Your task to perform on an android device: turn on priority inbox in the gmail app Image 0: 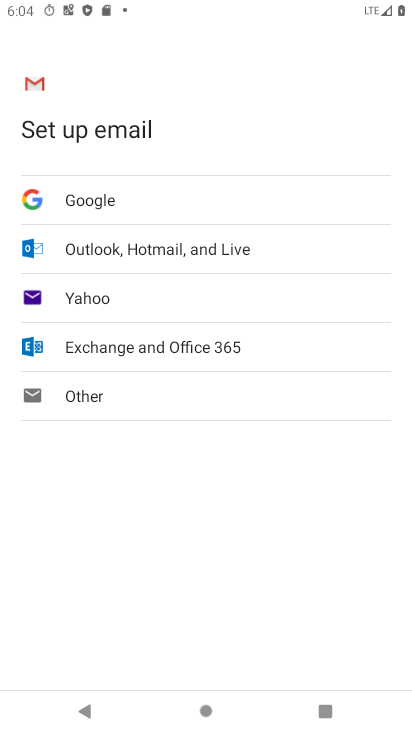
Step 0: press home button
Your task to perform on an android device: turn on priority inbox in the gmail app Image 1: 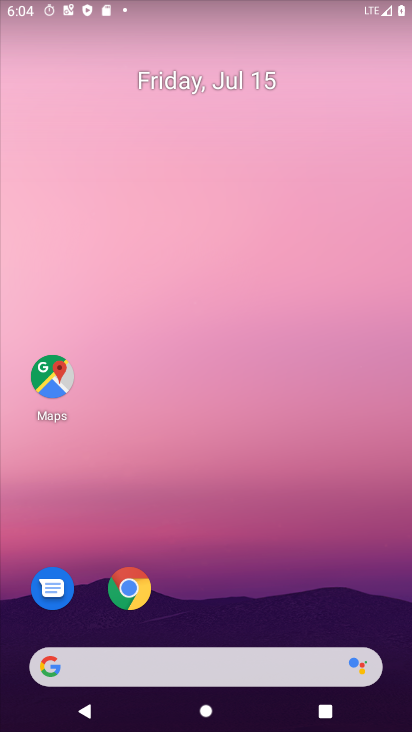
Step 1: drag from (256, 598) to (251, 26)
Your task to perform on an android device: turn on priority inbox in the gmail app Image 2: 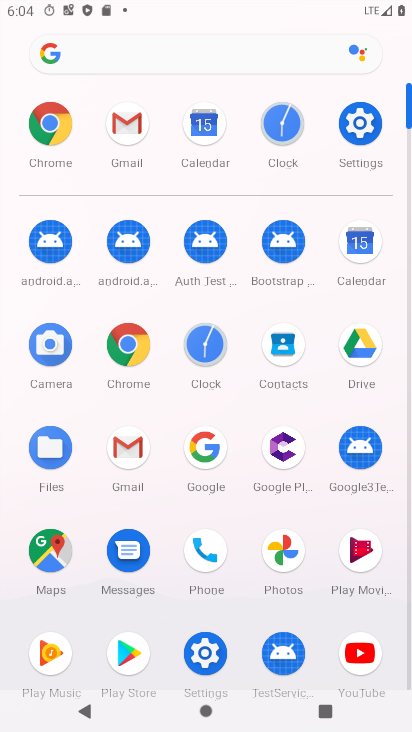
Step 2: click (134, 446)
Your task to perform on an android device: turn on priority inbox in the gmail app Image 3: 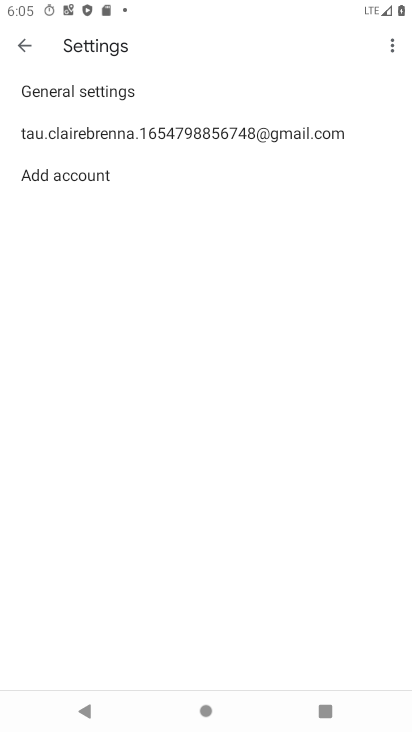
Step 3: click (194, 125)
Your task to perform on an android device: turn on priority inbox in the gmail app Image 4: 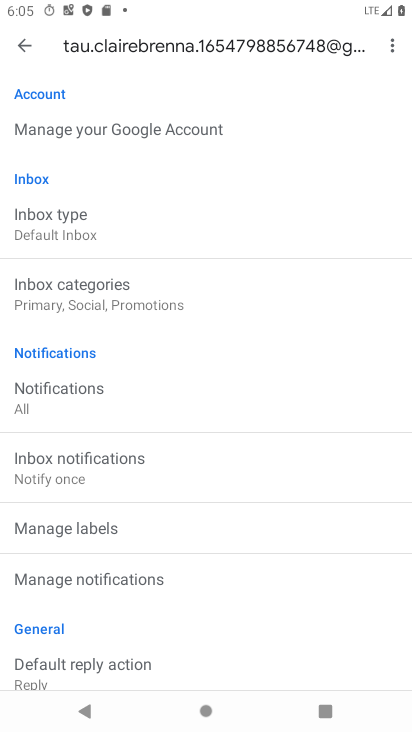
Step 4: click (32, 224)
Your task to perform on an android device: turn on priority inbox in the gmail app Image 5: 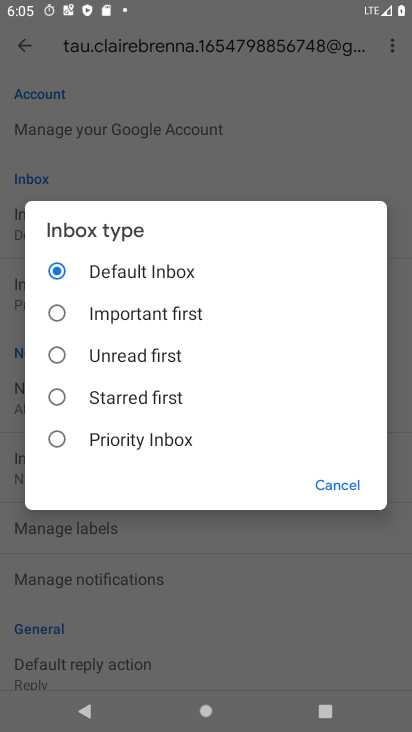
Step 5: click (51, 437)
Your task to perform on an android device: turn on priority inbox in the gmail app Image 6: 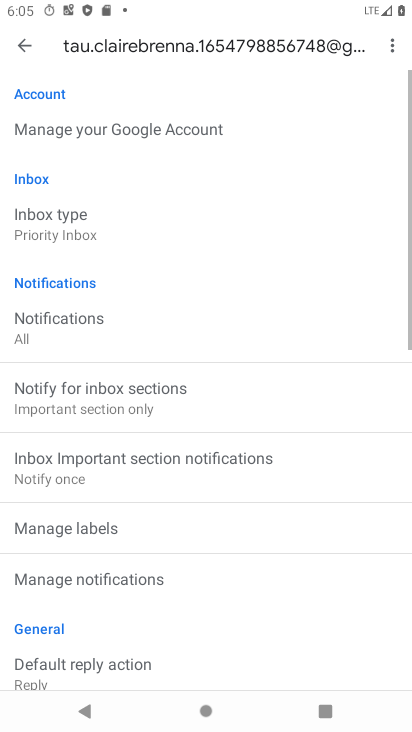
Step 6: task complete